Your task to perform on an android device: Add "amazon basics triple a" to the cart on target.com, then select checkout. Image 0: 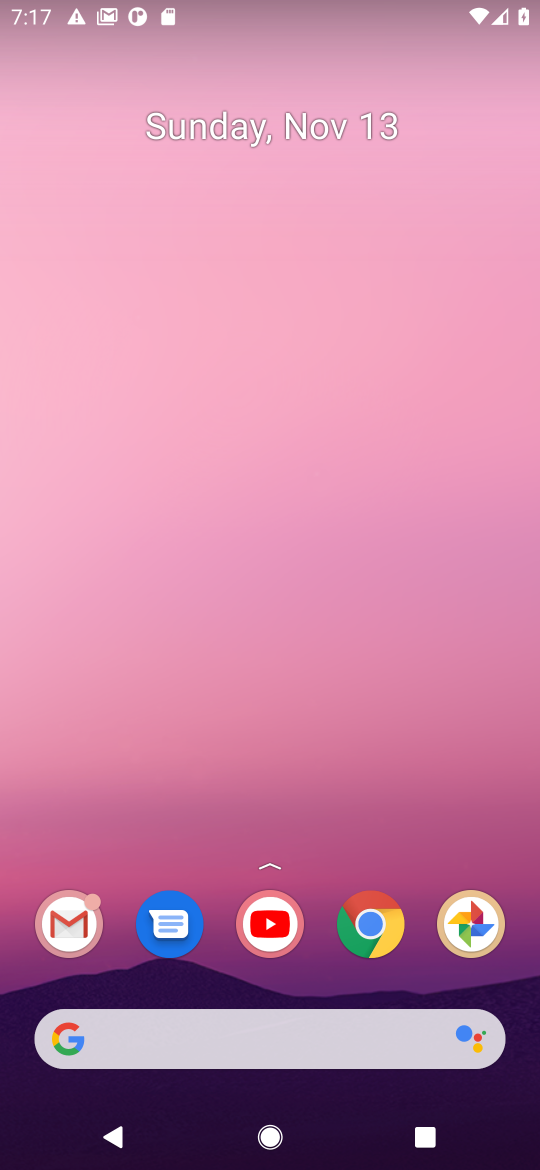
Step 0: click (381, 931)
Your task to perform on an android device: Add "amazon basics triple a" to the cart on target.com, then select checkout. Image 1: 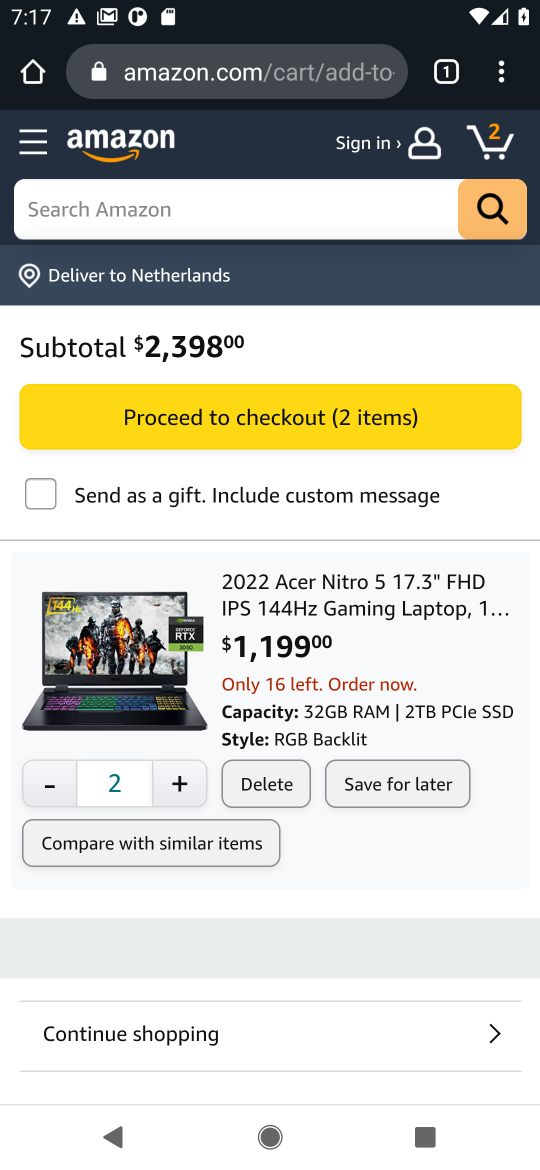
Step 1: click (220, 68)
Your task to perform on an android device: Add "amazon basics triple a" to the cart on target.com, then select checkout. Image 2: 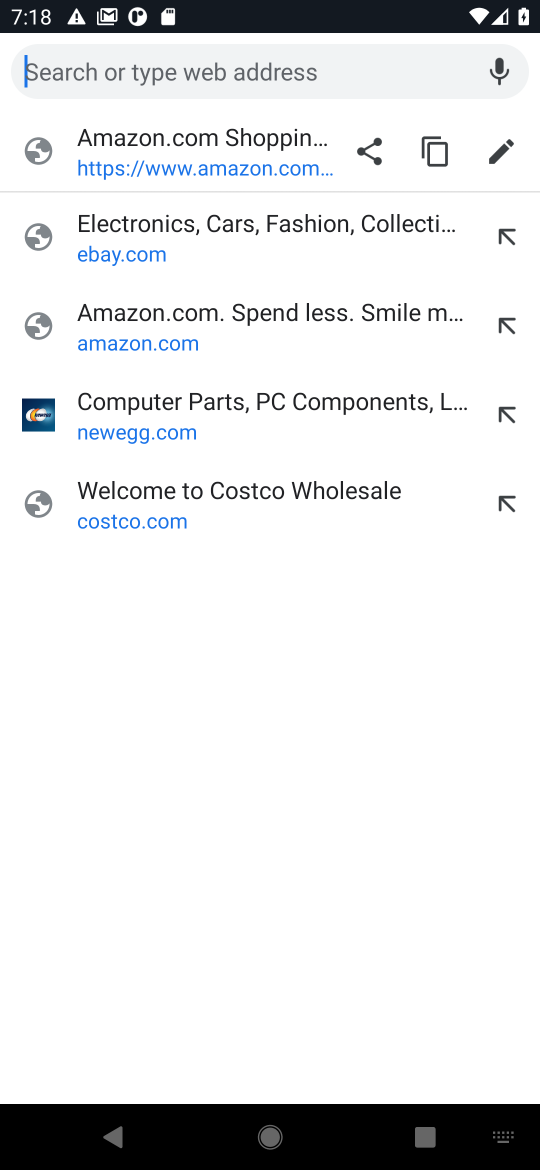
Step 2: type "target.com"
Your task to perform on an android device: Add "amazon basics triple a" to the cart on target.com, then select checkout. Image 3: 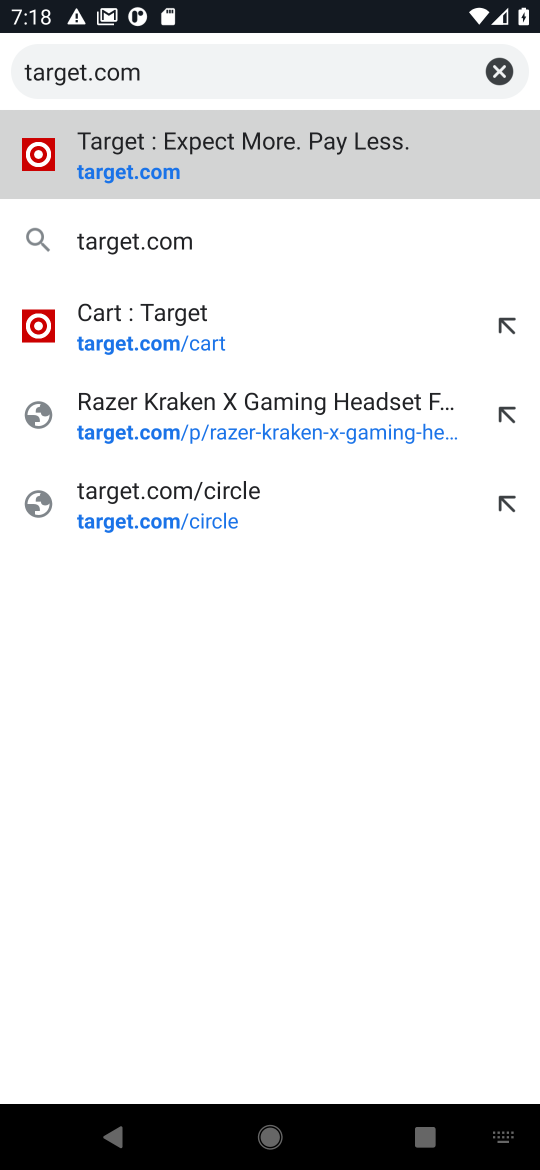
Step 3: click (111, 174)
Your task to perform on an android device: Add "amazon basics triple a" to the cart on target.com, then select checkout. Image 4: 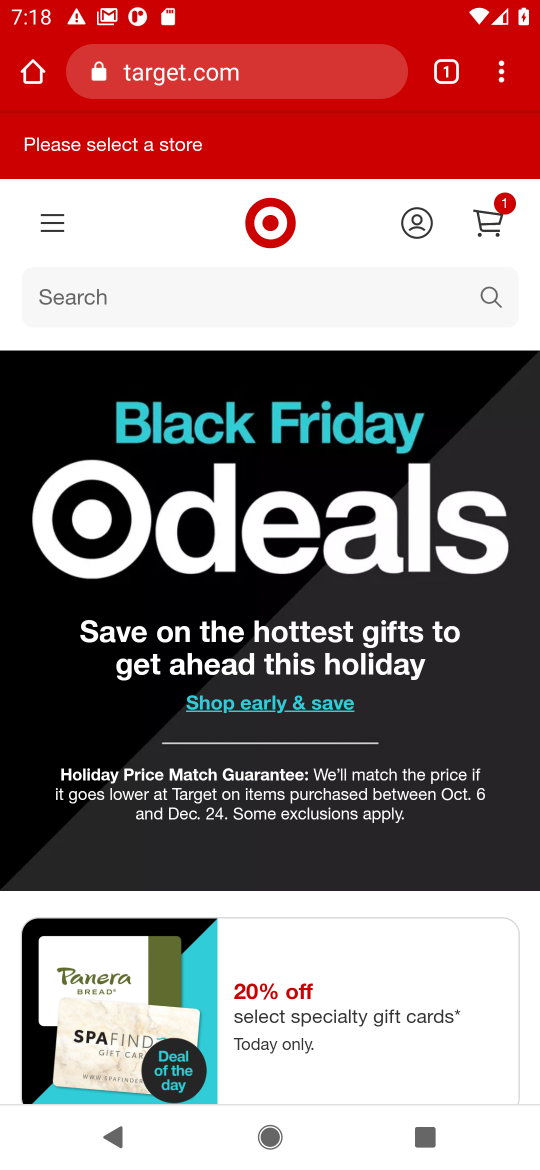
Step 4: click (476, 300)
Your task to perform on an android device: Add "amazon basics triple a" to the cart on target.com, then select checkout. Image 5: 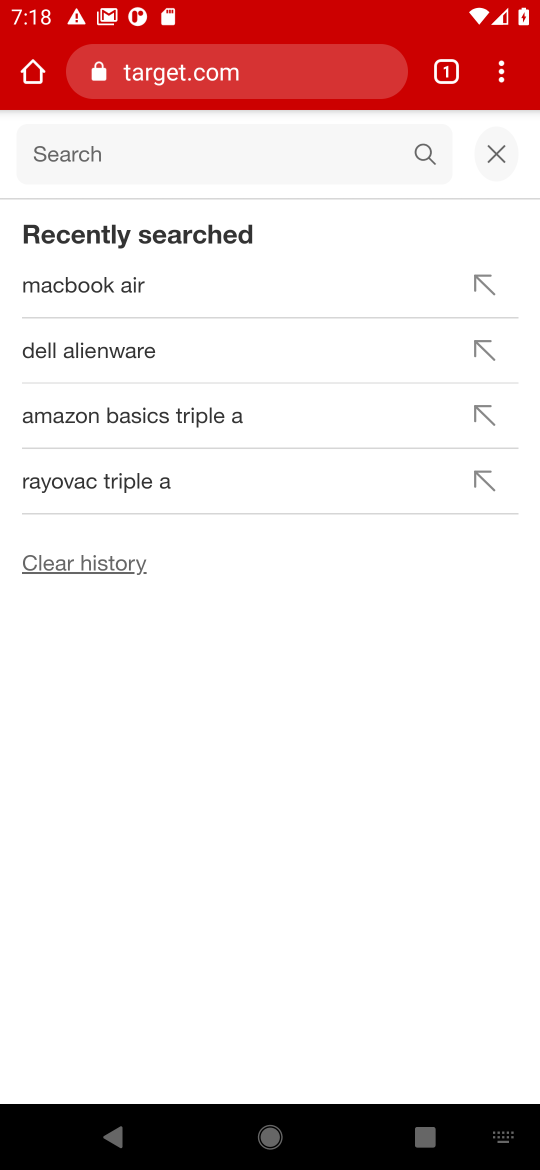
Step 5: type "amazon basics triple a"
Your task to perform on an android device: Add "amazon basics triple a" to the cart on target.com, then select checkout. Image 6: 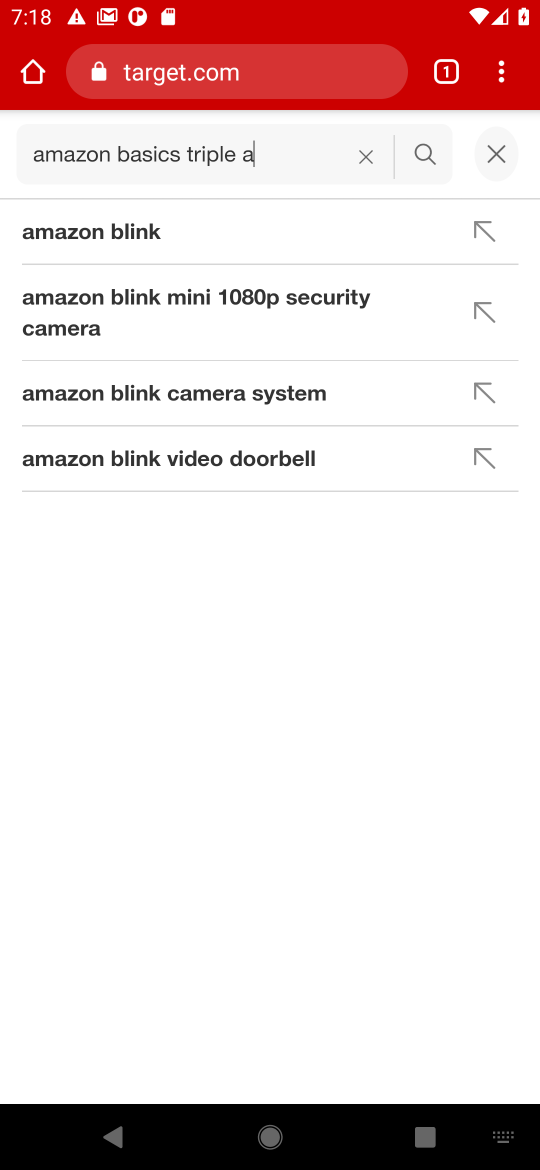
Step 6: click (423, 162)
Your task to perform on an android device: Add "amazon basics triple a" to the cart on target.com, then select checkout. Image 7: 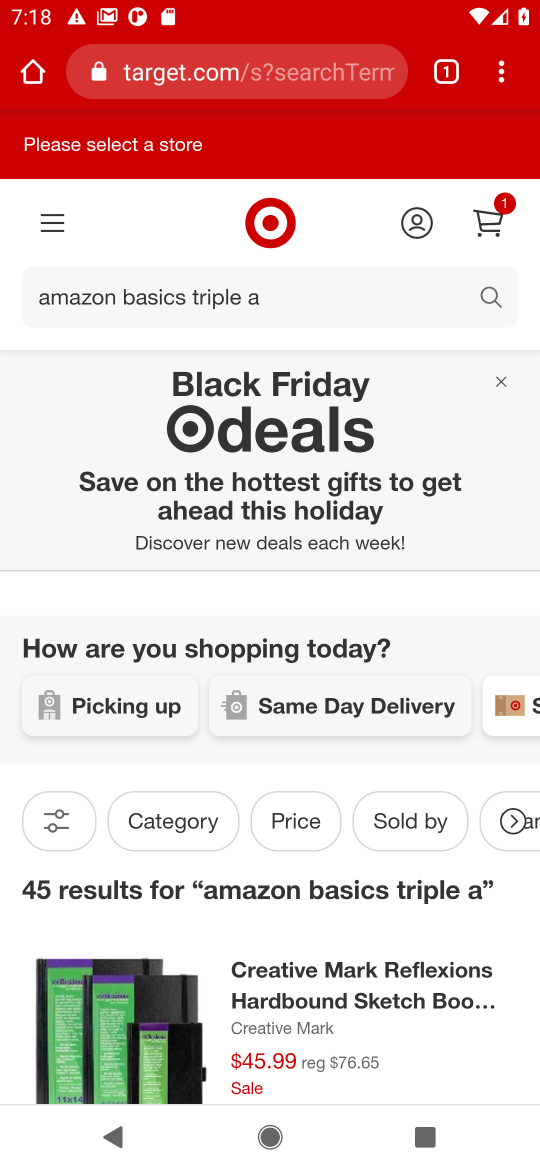
Step 7: task complete